Your task to perform on an android device: Search for pizza restaurants on Maps Image 0: 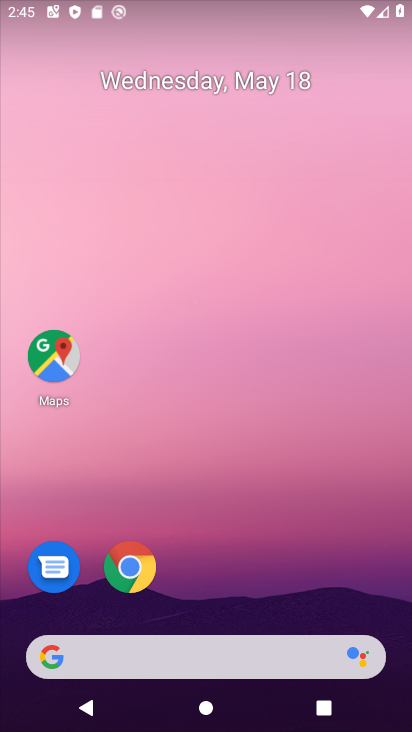
Step 0: click (55, 366)
Your task to perform on an android device: Search for pizza restaurants on Maps Image 1: 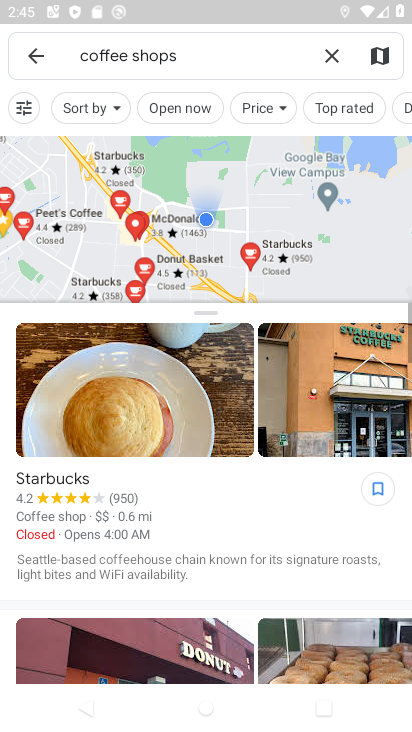
Step 1: click (325, 54)
Your task to perform on an android device: Search for pizza restaurants on Maps Image 2: 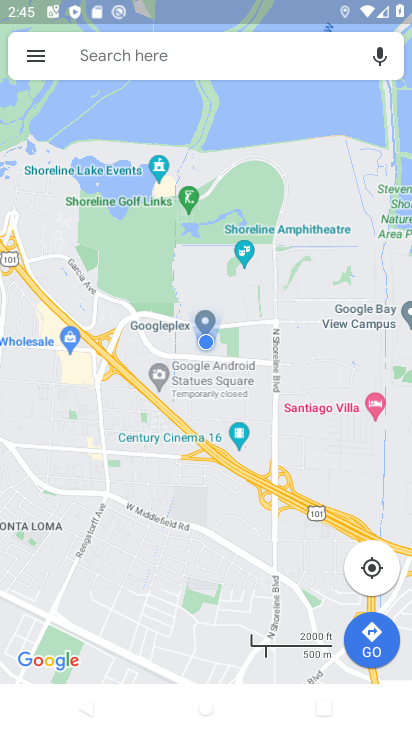
Step 2: click (218, 49)
Your task to perform on an android device: Search for pizza restaurants on Maps Image 3: 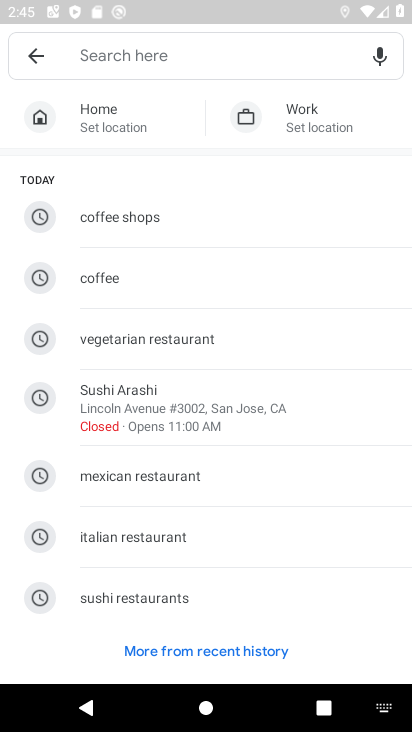
Step 3: type "pizza restaurants"
Your task to perform on an android device: Search for pizza restaurants on Maps Image 4: 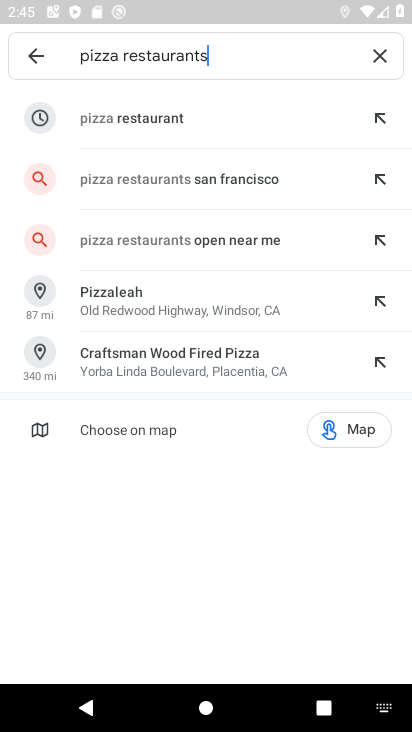
Step 4: click (209, 134)
Your task to perform on an android device: Search for pizza restaurants on Maps Image 5: 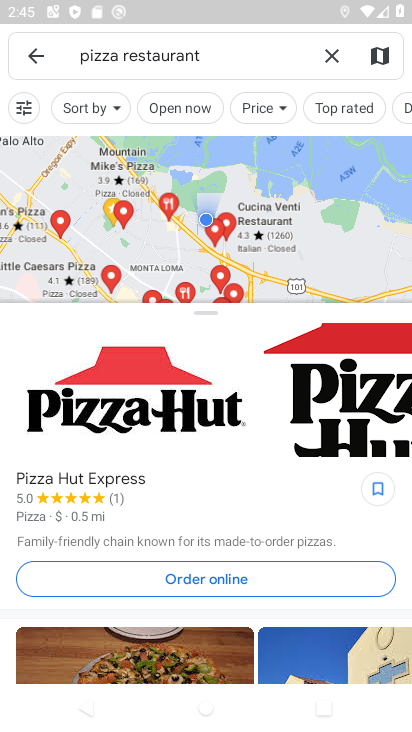
Step 5: task complete